Your task to perform on an android device: Open Maps and search for coffee Image 0: 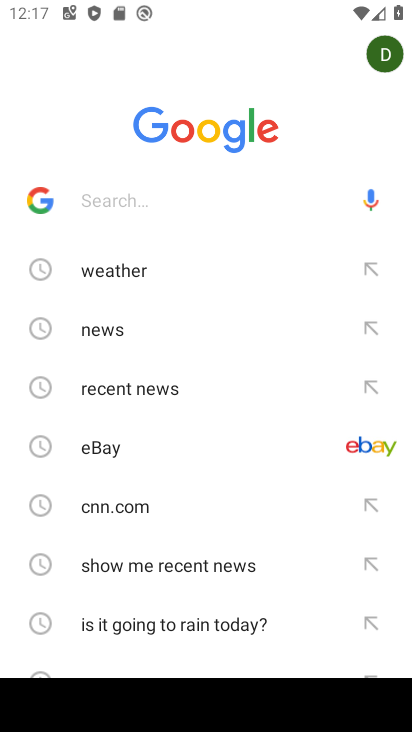
Step 0: press home button
Your task to perform on an android device: Open Maps and search for coffee Image 1: 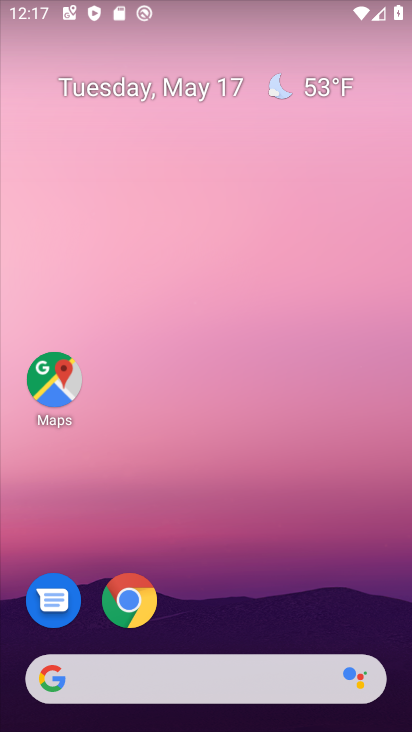
Step 1: click (50, 384)
Your task to perform on an android device: Open Maps and search for coffee Image 2: 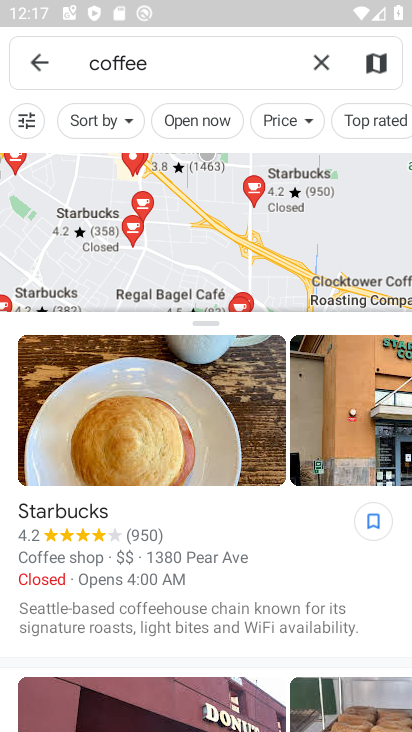
Step 2: task complete